Your task to perform on an android device: snooze an email in the gmail app Image 0: 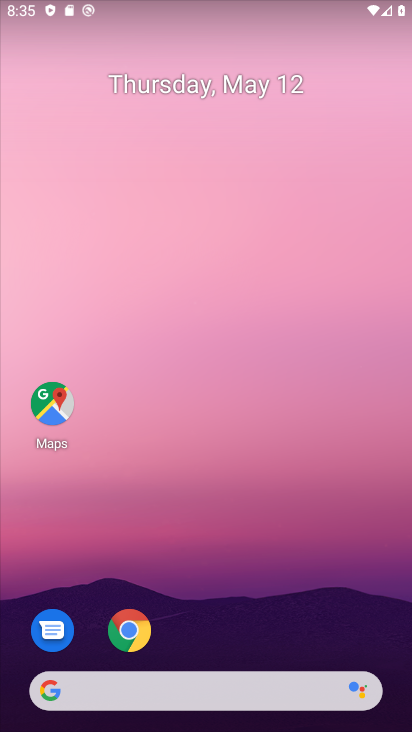
Step 0: drag from (224, 646) to (199, 354)
Your task to perform on an android device: snooze an email in the gmail app Image 1: 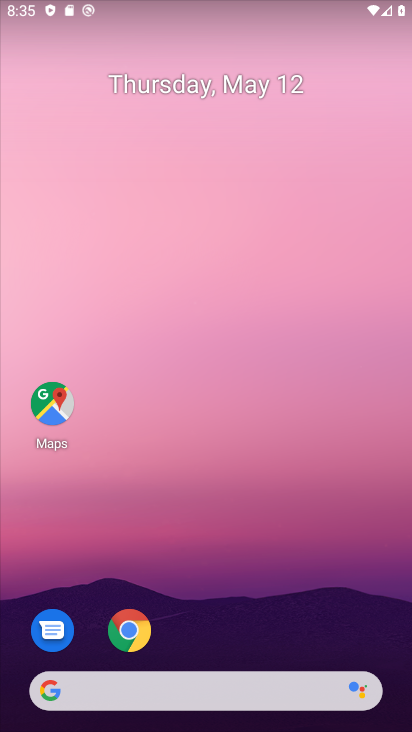
Step 1: drag from (304, 632) to (243, 202)
Your task to perform on an android device: snooze an email in the gmail app Image 2: 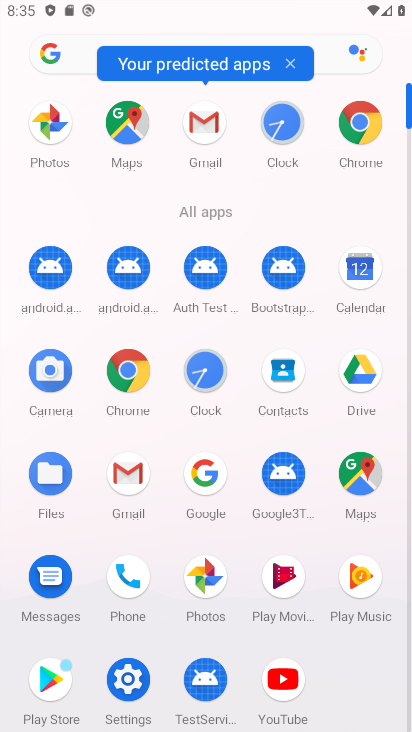
Step 2: click (199, 140)
Your task to perform on an android device: snooze an email in the gmail app Image 3: 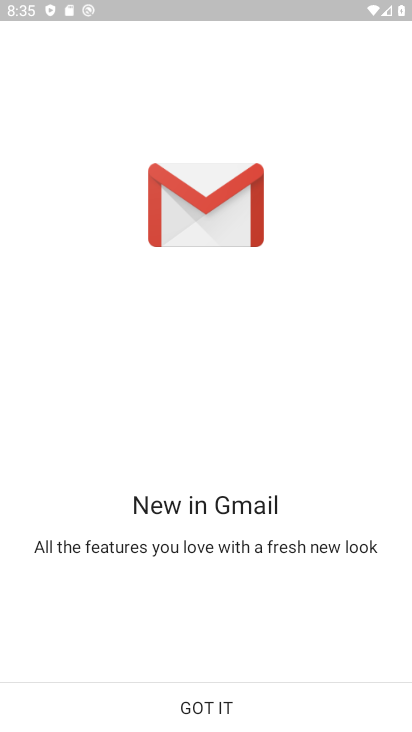
Step 3: click (275, 717)
Your task to perform on an android device: snooze an email in the gmail app Image 4: 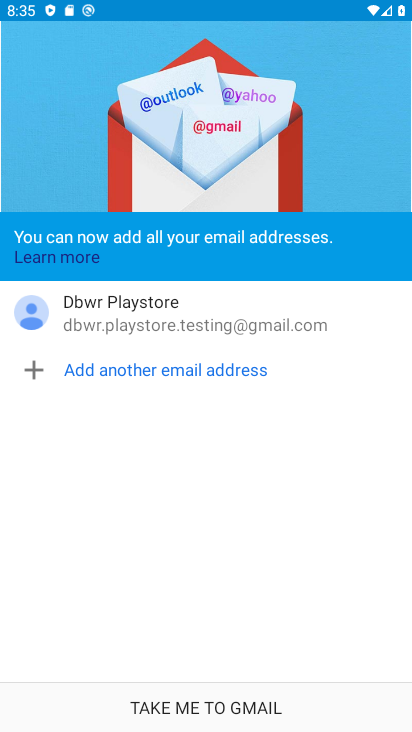
Step 4: click (200, 701)
Your task to perform on an android device: snooze an email in the gmail app Image 5: 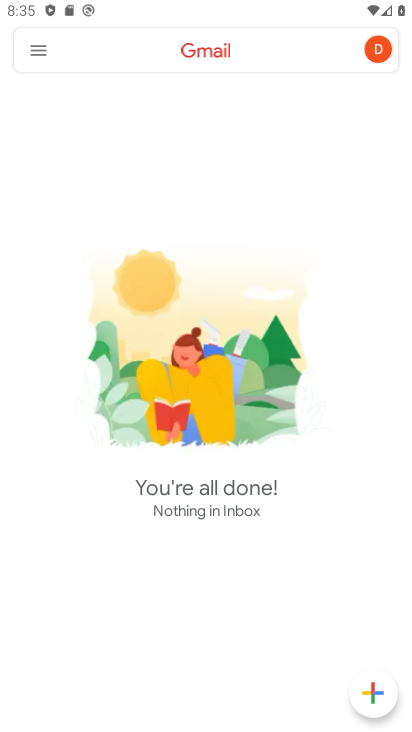
Step 5: click (39, 51)
Your task to perform on an android device: snooze an email in the gmail app Image 6: 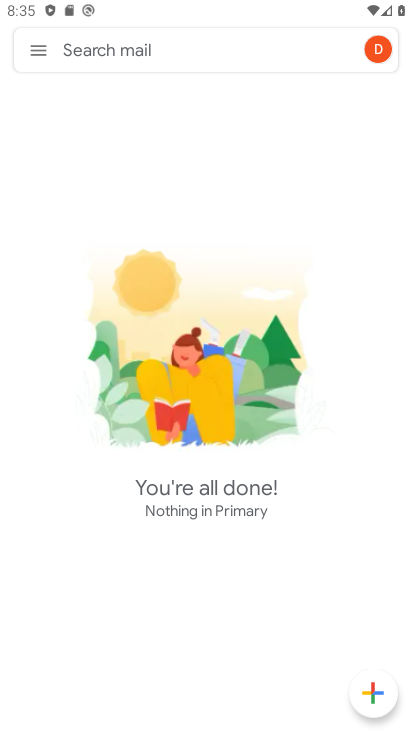
Step 6: click (34, 60)
Your task to perform on an android device: snooze an email in the gmail app Image 7: 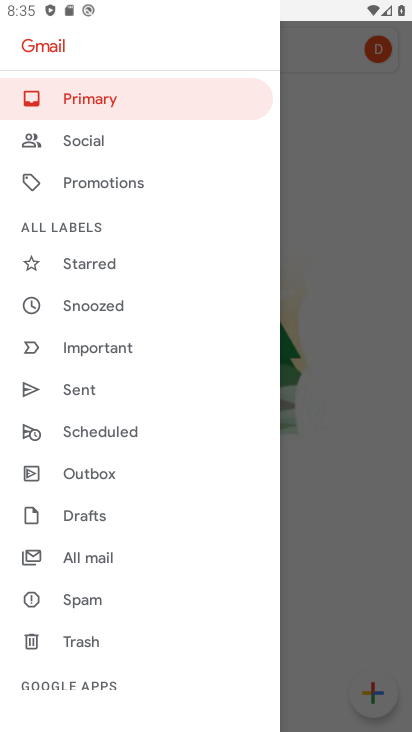
Step 7: click (106, 557)
Your task to perform on an android device: snooze an email in the gmail app Image 8: 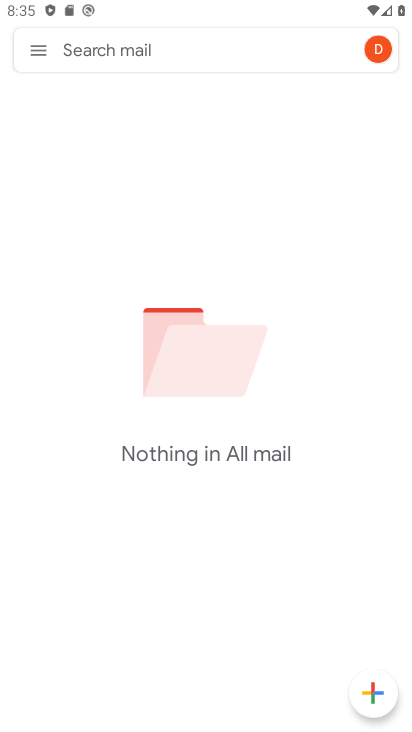
Step 8: task complete